Your task to perform on an android device: read, delete, or share a saved page in the chrome app Image 0: 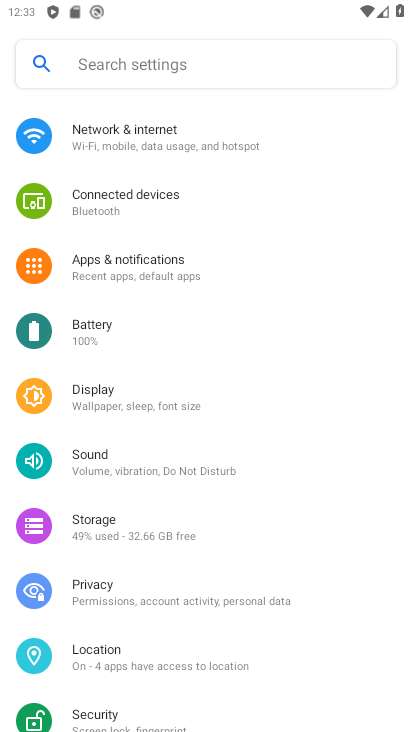
Step 0: drag from (219, 646) to (239, 280)
Your task to perform on an android device: read, delete, or share a saved page in the chrome app Image 1: 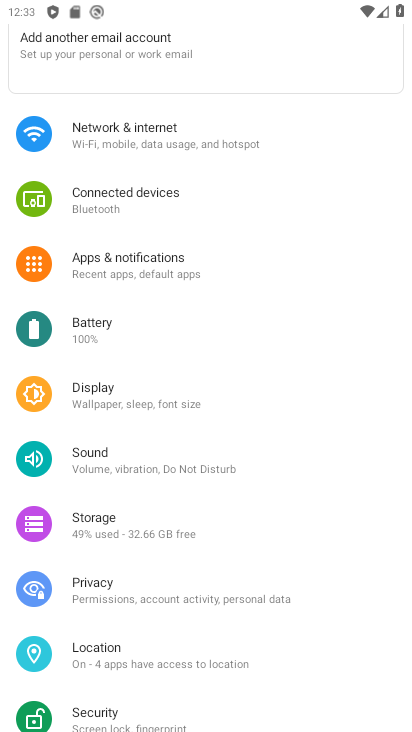
Step 1: click (242, 247)
Your task to perform on an android device: read, delete, or share a saved page in the chrome app Image 2: 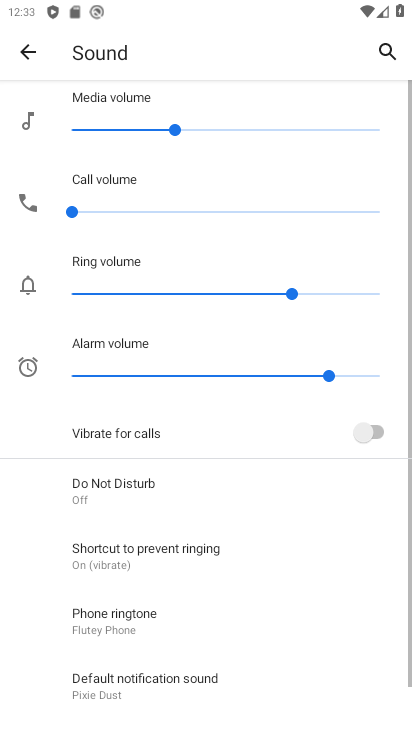
Step 2: press home button
Your task to perform on an android device: read, delete, or share a saved page in the chrome app Image 3: 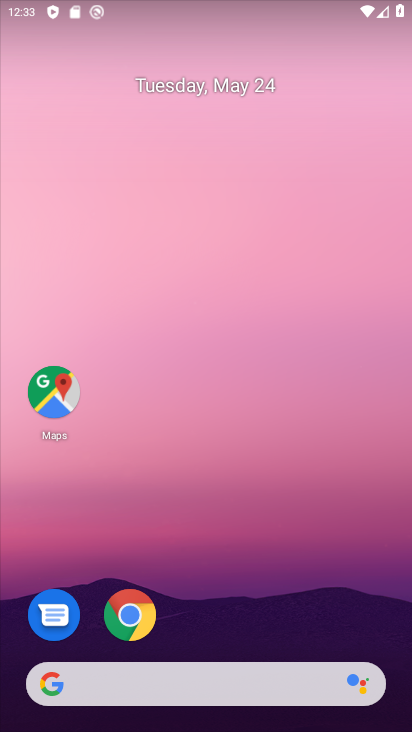
Step 3: drag from (213, 638) to (237, 204)
Your task to perform on an android device: read, delete, or share a saved page in the chrome app Image 4: 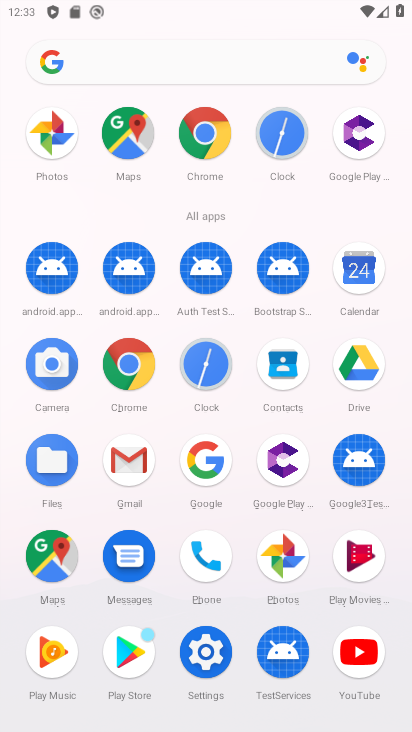
Step 4: click (127, 355)
Your task to perform on an android device: read, delete, or share a saved page in the chrome app Image 5: 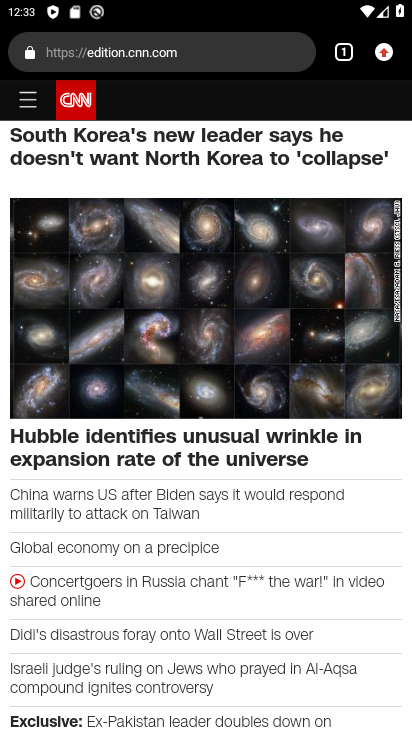
Step 5: click (380, 43)
Your task to perform on an android device: read, delete, or share a saved page in the chrome app Image 6: 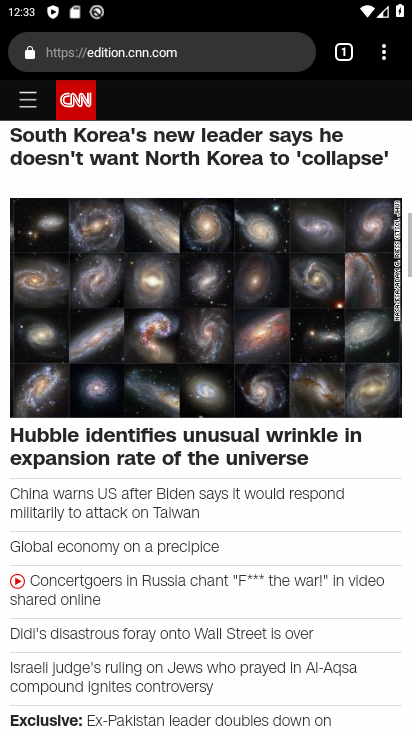
Step 6: click (385, 48)
Your task to perform on an android device: read, delete, or share a saved page in the chrome app Image 7: 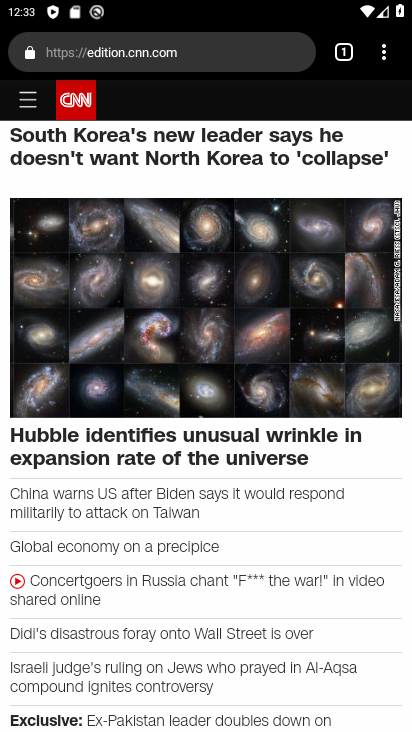
Step 7: click (383, 50)
Your task to perform on an android device: read, delete, or share a saved page in the chrome app Image 8: 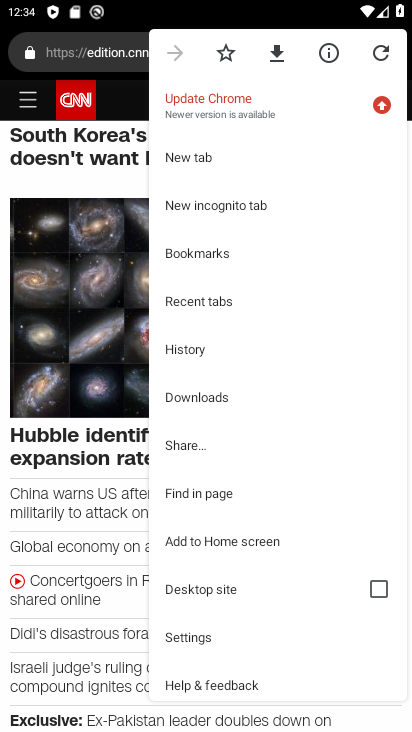
Step 8: click (230, 396)
Your task to perform on an android device: read, delete, or share a saved page in the chrome app Image 9: 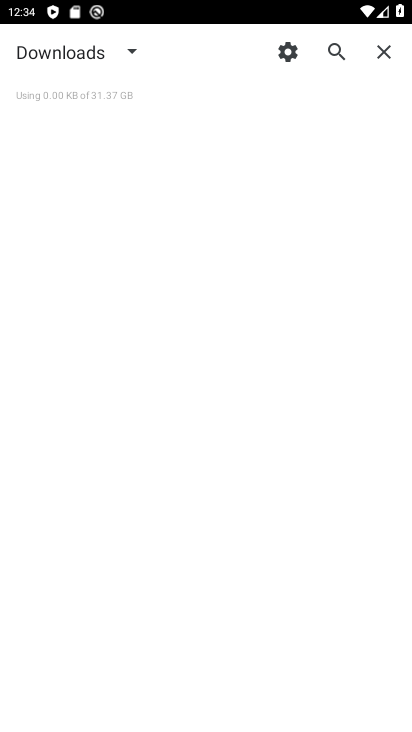
Step 9: task complete